Your task to perform on an android device: choose inbox layout in the gmail app Image 0: 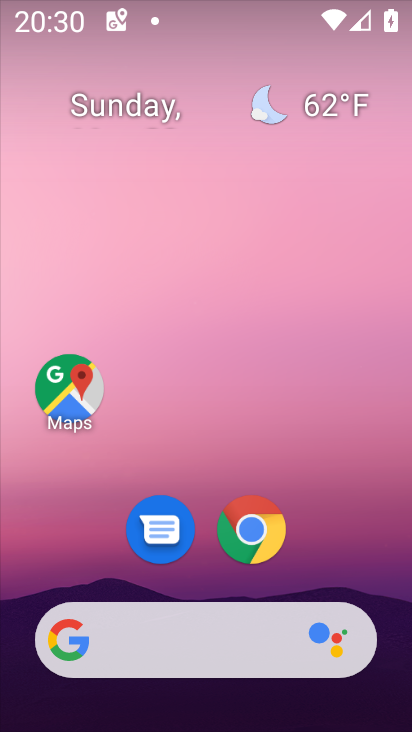
Step 0: drag from (230, 614) to (178, 228)
Your task to perform on an android device: choose inbox layout in the gmail app Image 1: 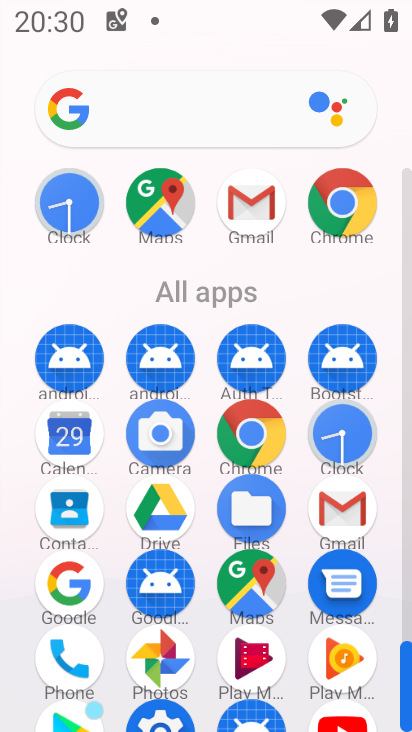
Step 1: click (342, 495)
Your task to perform on an android device: choose inbox layout in the gmail app Image 2: 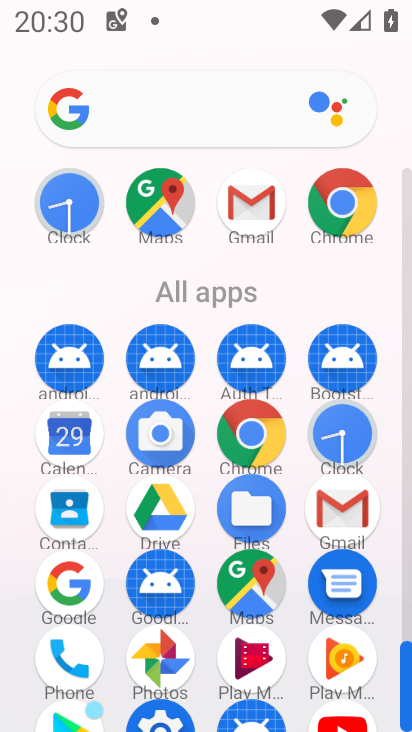
Step 2: click (342, 495)
Your task to perform on an android device: choose inbox layout in the gmail app Image 3: 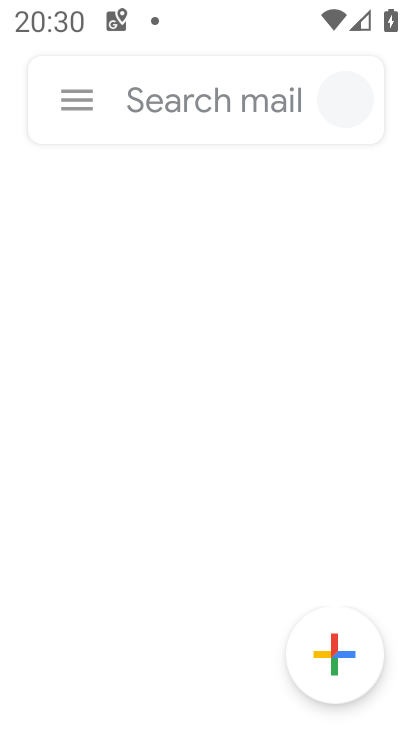
Step 3: click (332, 508)
Your task to perform on an android device: choose inbox layout in the gmail app Image 4: 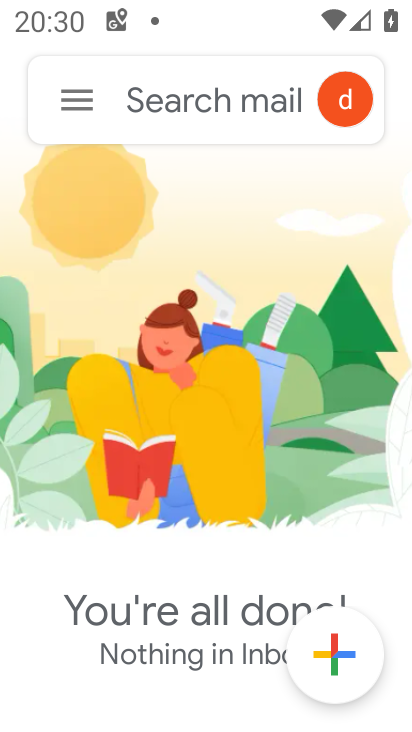
Step 4: click (80, 110)
Your task to perform on an android device: choose inbox layout in the gmail app Image 5: 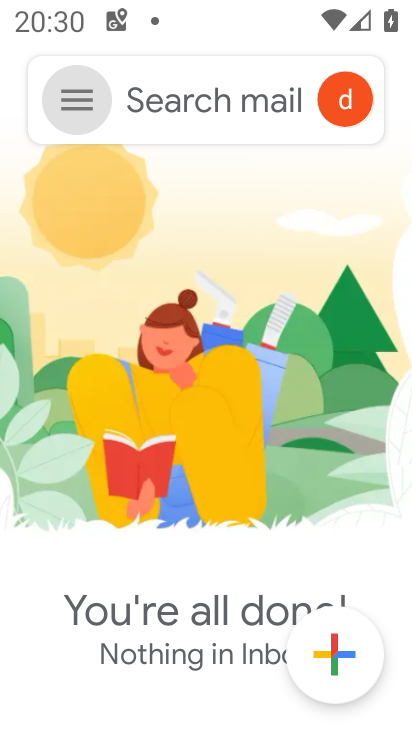
Step 5: click (80, 110)
Your task to perform on an android device: choose inbox layout in the gmail app Image 6: 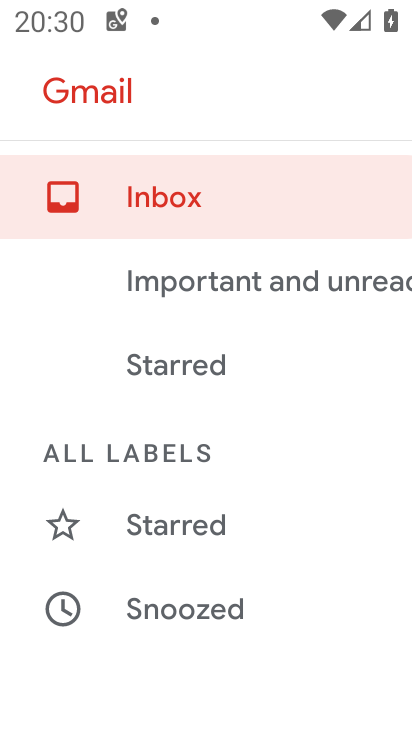
Step 6: drag from (172, 547) to (176, 260)
Your task to perform on an android device: choose inbox layout in the gmail app Image 7: 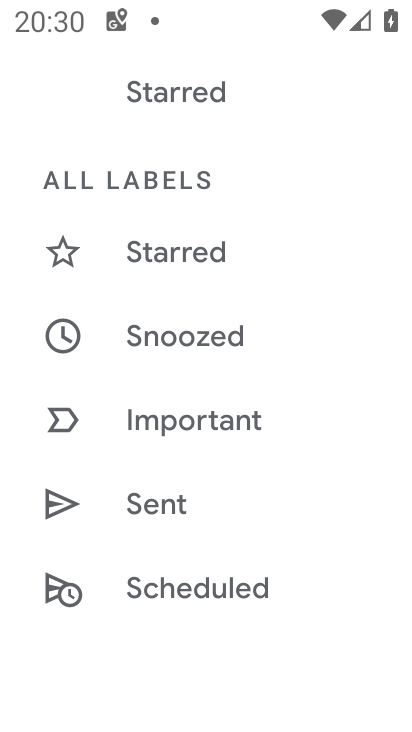
Step 7: drag from (179, 487) to (137, 72)
Your task to perform on an android device: choose inbox layout in the gmail app Image 8: 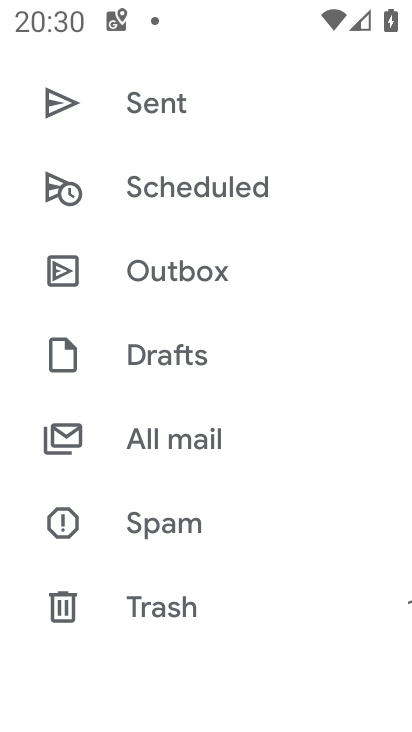
Step 8: drag from (201, 495) to (201, 107)
Your task to perform on an android device: choose inbox layout in the gmail app Image 9: 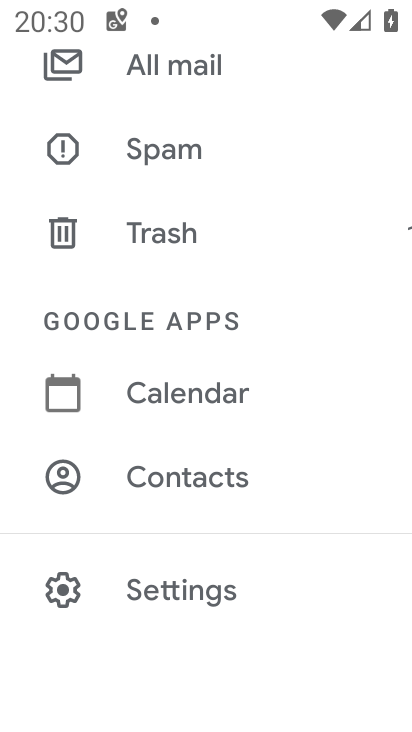
Step 9: click (167, 585)
Your task to perform on an android device: choose inbox layout in the gmail app Image 10: 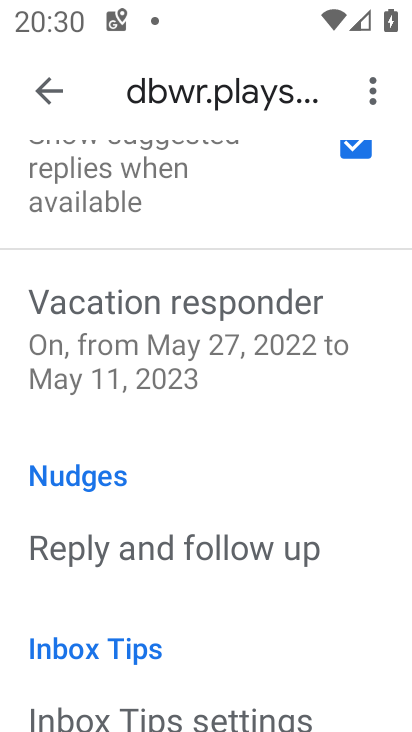
Step 10: drag from (102, 299) to (106, 544)
Your task to perform on an android device: choose inbox layout in the gmail app Image 11: 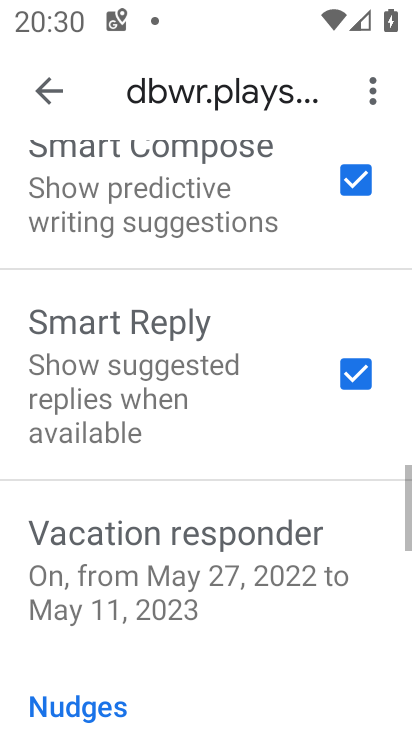
Step 11: drag from (60, 236) to (110, 560)
Your task to perform on an android device: choose inbox layout in the gmail app Image 12: 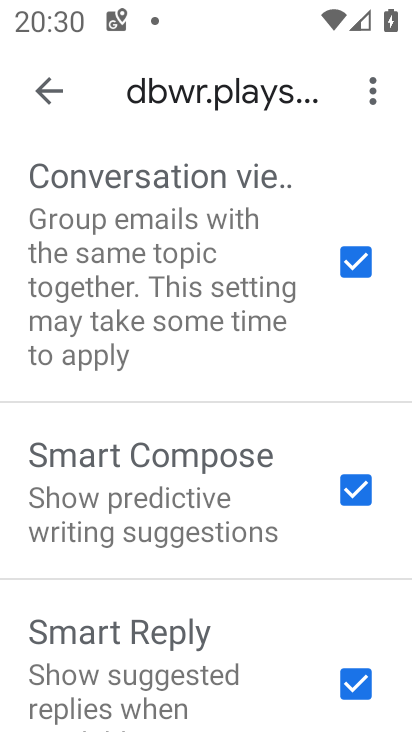
Step 12: drag from (139, 283) to (194, 678)
Your task to perform on an android device: choose inbox layout in the gmail app Image 13: 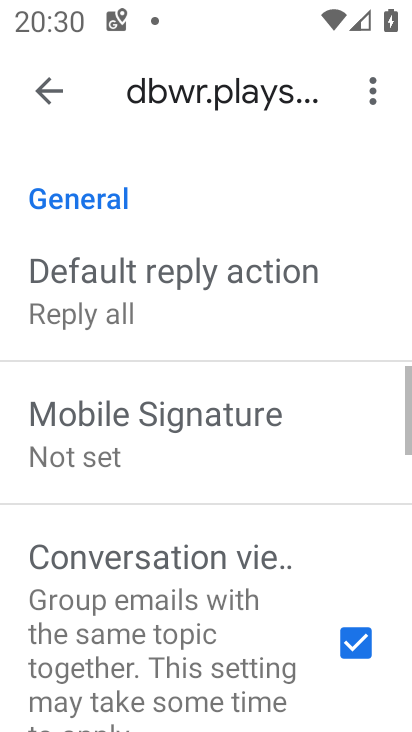
Step 13: drag from (180, 301) to (181, 634)
Your task to perform on an android device: choose inbox layout in the gmail app Image 14: 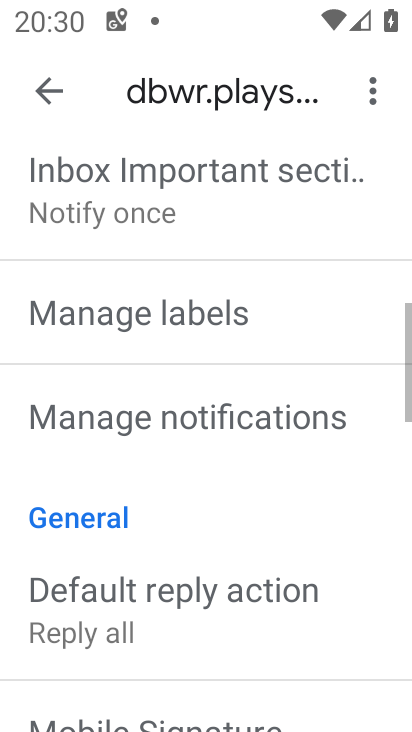
Step 14: drag from (147, 271) to (196, 720)
Your task to perform on an android device: choose inbox layout in the gmail app Image 15: 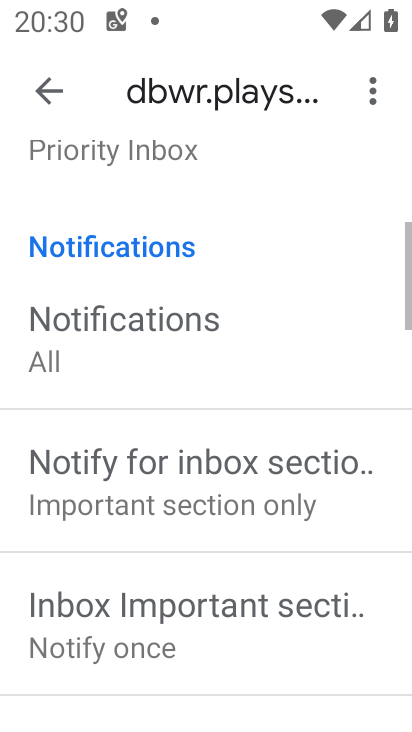
Step 15: drag from (115, 303) to (178, 691)
Your task to perform on an android device: choose inbox layout in the gmail app Image 16: 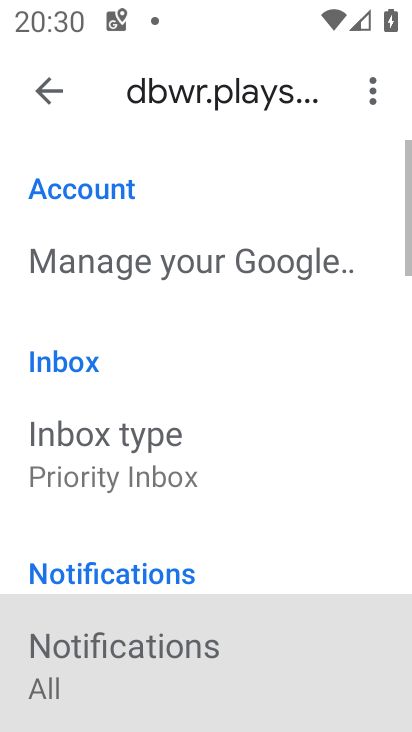
Step 16: drag from (190, 302) to (245, 716)
Your task to perform on an android device: choose inbox layout in the gmail app Image 17: 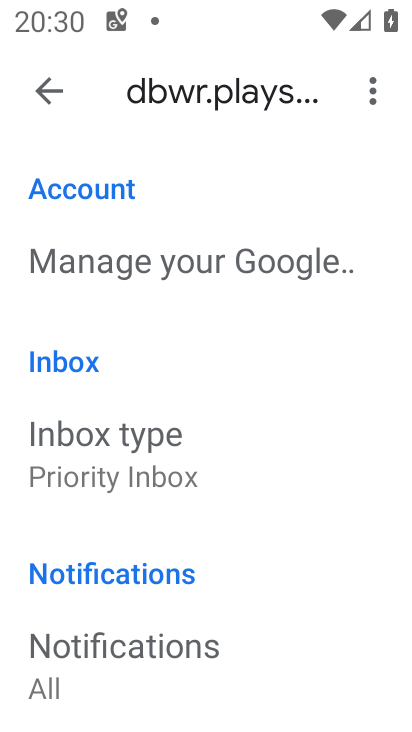
Step 17: click (81, 458)
Your task to perform on an android device: choose inbox layout in the gmail app Image 18: 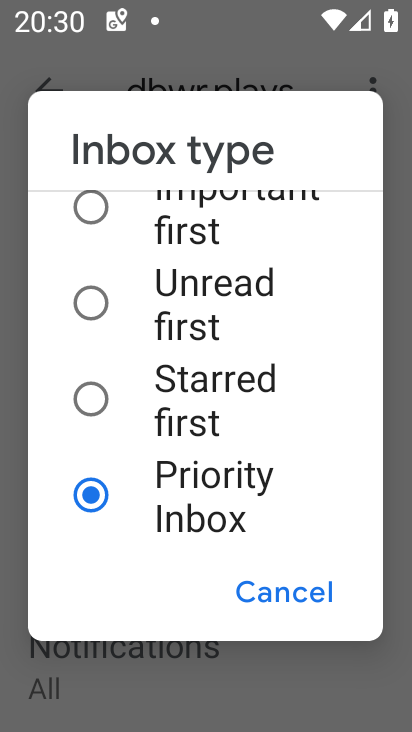
Step 18: click (322, 445)
Your task to perform on an android device: choose inbox layout in the gmail app Image 19: 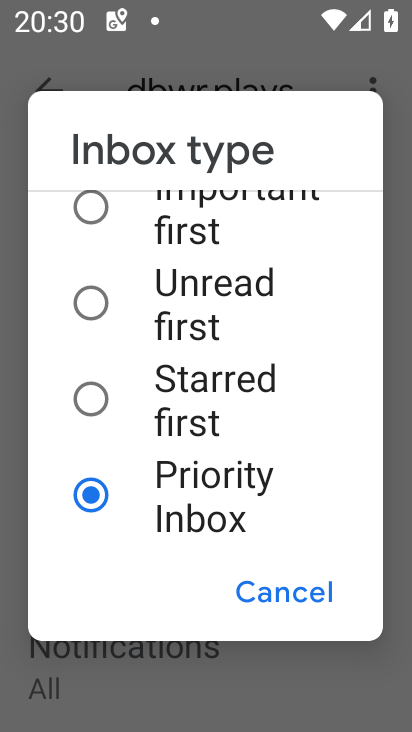
Step 19: drag from (312, 261) to (312, 425)
Your task to perform on an android device: choose inbox layout in the gmail app Image 20: 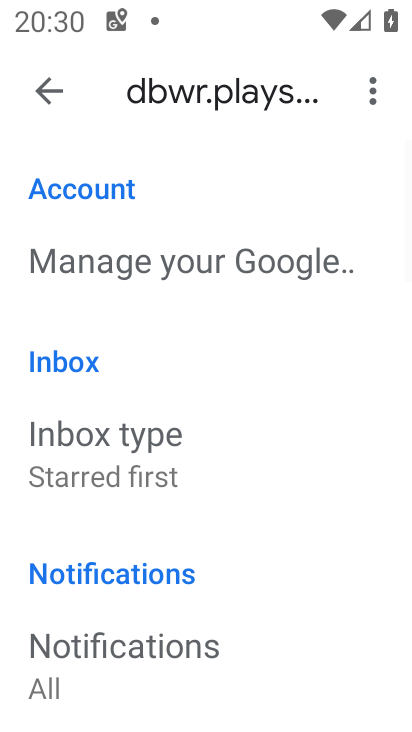
Step 20: click (90, 472)
Your task to perform on an android device: choose inbox layout in the gmail app Image 21: 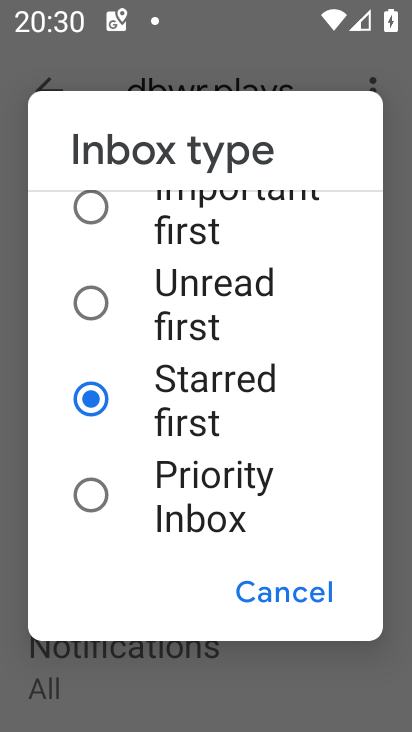
Step 21: click (375, 253)
Your task to perform on an android device: choose inbox layout in the gmail app Image 22: 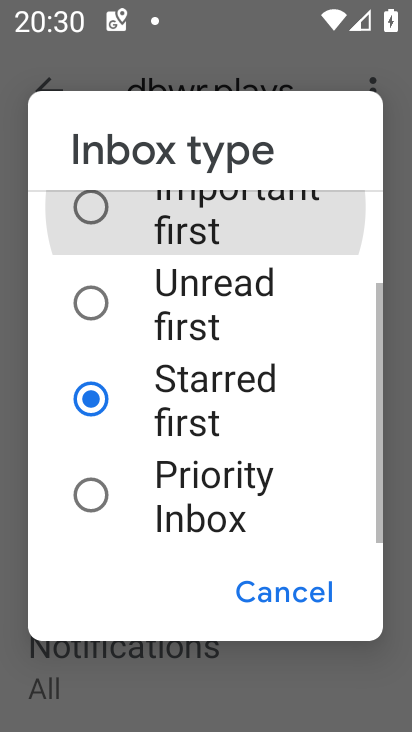
Step 22: click (374, 224)
Your task to perform on an android device: choose inbox layout in the gmail app Image 23: 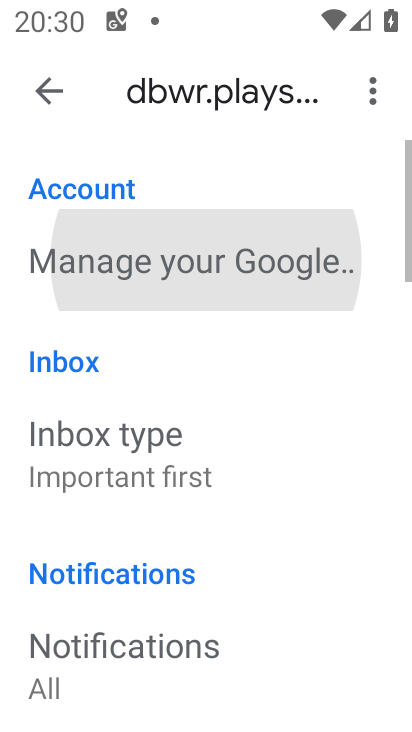
Step 23: click (352, 255)
Your task to perform on an android device: choose inbox layout in the gmail app Image 24: 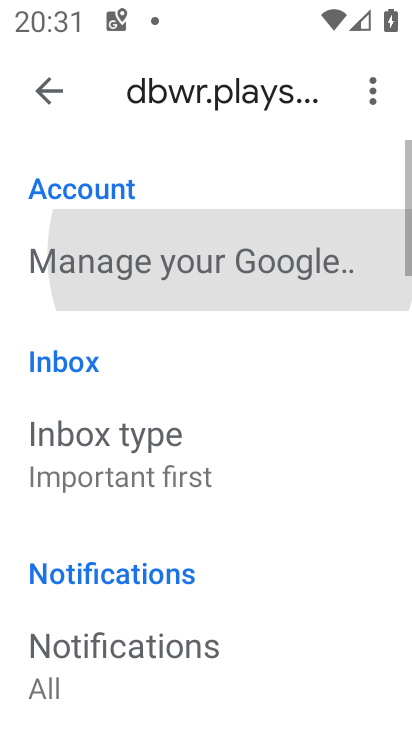
Step 24: click (357, 264)
Your task to perform on an android device: choose inbox layout in the gmail app Image 25: 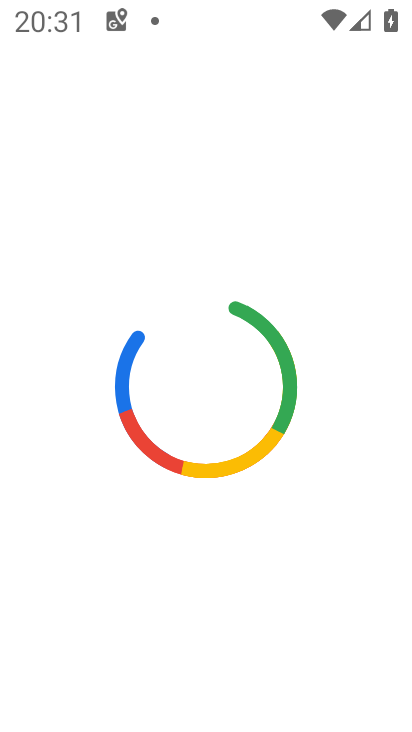
Step 25: press back button
Your task to perform on an android device: choose inbox layout in the gmail app Image 26: 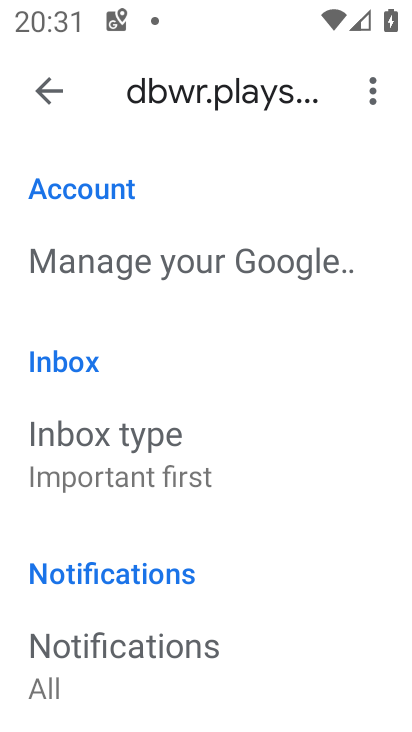
Step 26: click (92, 471)
Your task to perform on an android device: choose inbox layout in the gmail app Image 27: 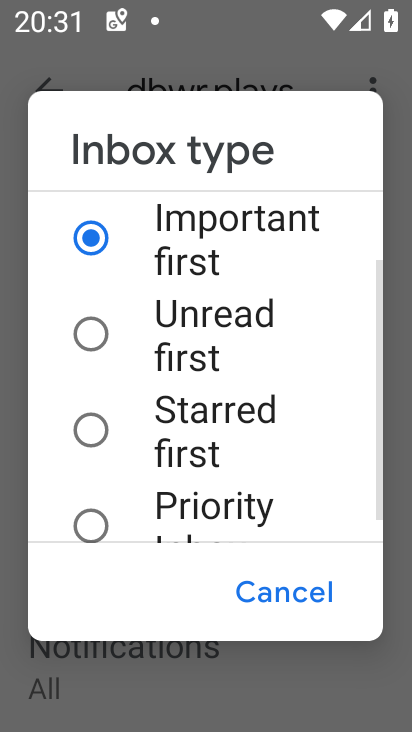
Step 27: task complete